Your task to perform on an android device: Open Youtube and go to the subscriptions tab Image 0: 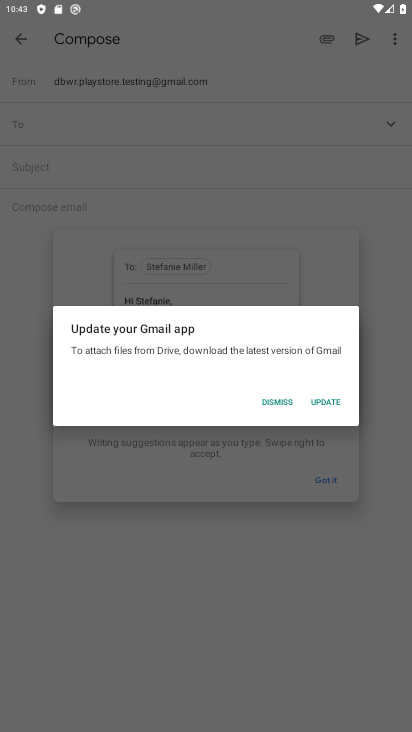
Step 0: press home button
Your task to perform on an android device: Open Youtube and go to the subscriptions tab Image 1: 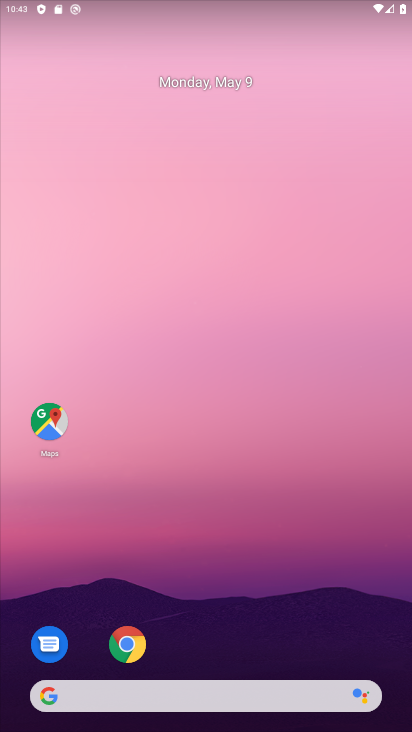
Step 1: drag from (190, 680) to (324, 30)
Your task to perform on an android device: Open Youtube and go to the subscriptions tab Image 2: 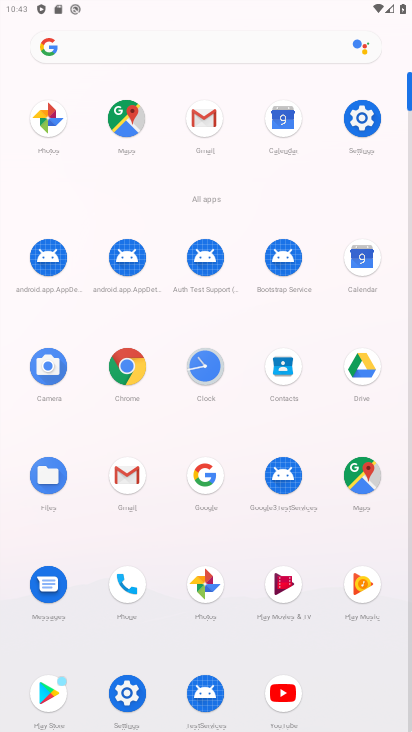
Step 2: drag from (304, 575) to (385, 124)
Your task to perform on an android device: Open Youtube and go to the subscriptions tab Image 3: 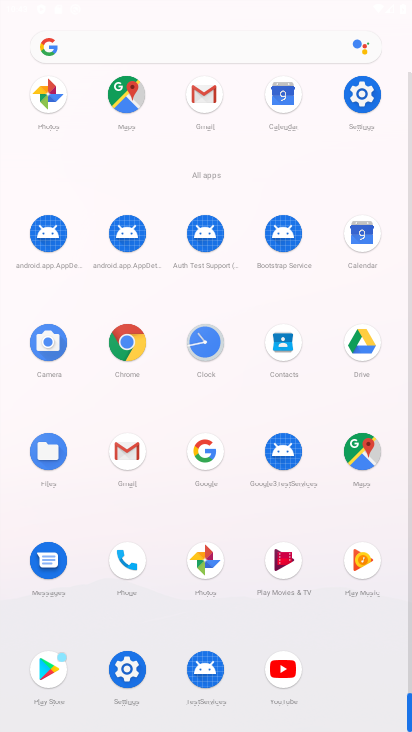
Step 3: click (284, 687)
Your task to perform on an android device: Open Youtube and go to the subscriptions tab Image 4: 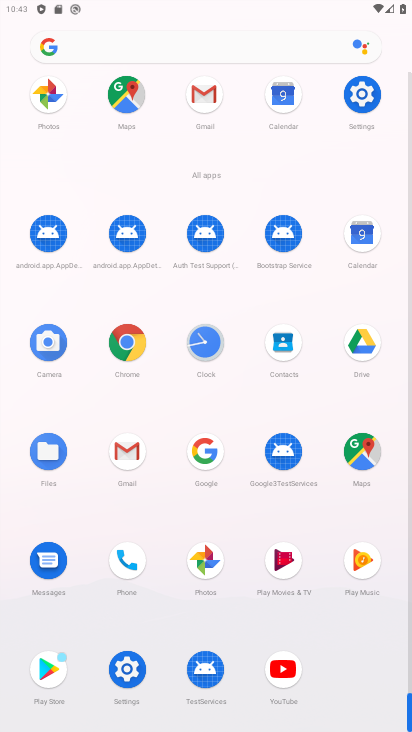
Step 4: click (289, 668)
Your task to perform on an android device: Open Youtube and go to the subscriptions tab Image 5: 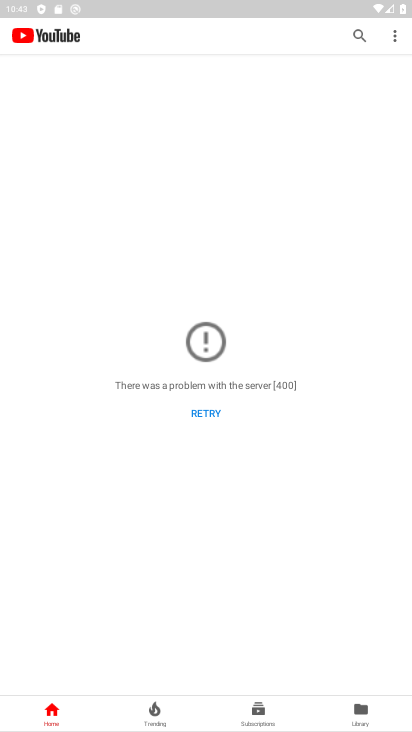
Step 5: click (259, 711)
Your task to perform on an android device: Open Youtube and go to the subscriptions tab Image 6: 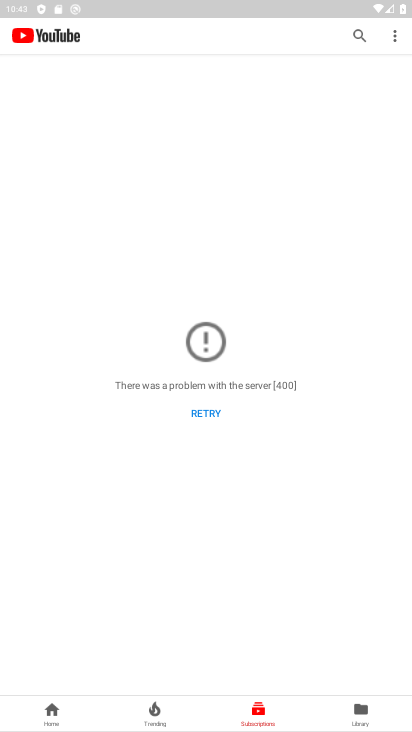
Step 6: click (209, 413)
Your task to perform on an android device: Open Youtube and go to the subscriptions tab Image 7: 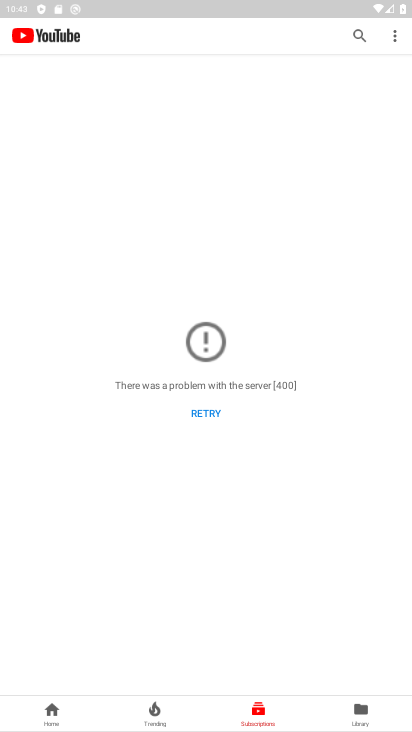
Step 7: click (209, 414)
Your task to perform on an android device: Open Youtube and go to the subscriptions tab Image 8: 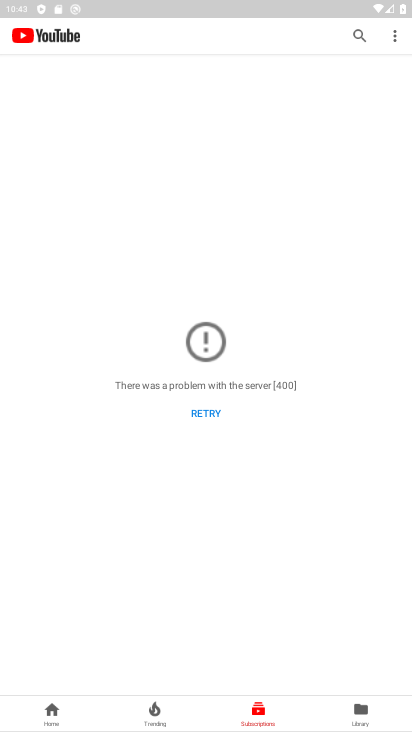
Step 8: task complete